Your task to perform on an android device: turn off translation in the chrome app Image 0: 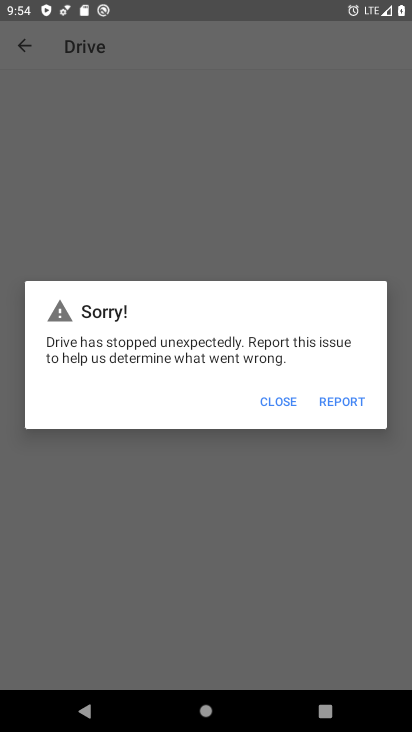
Step 0: press home button
Your task to perform on an android device: turn off translation in the chrome app Image 1: 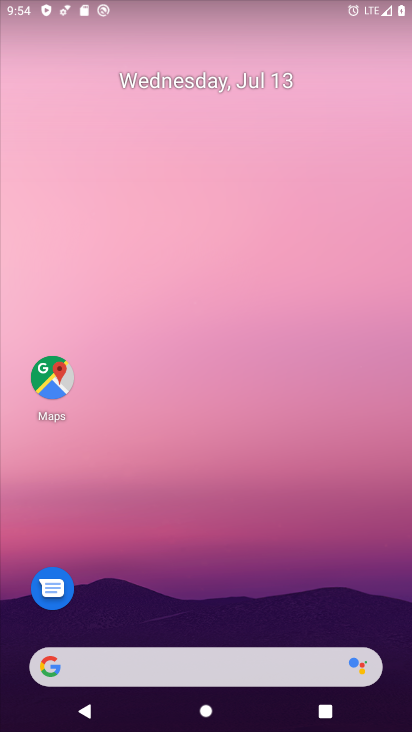
Step 1: drag from (243, 718) to (255, 137)
Your task to perform on an android device: turn off translation in the chrome app Image 2: 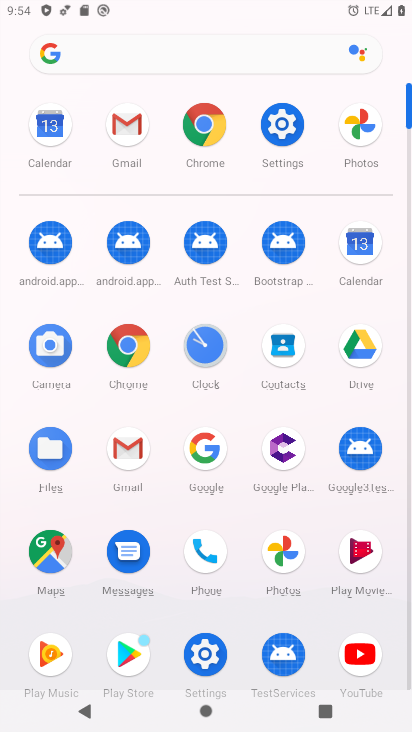
Step 2: click (197, 121)
Your task to perform on an android device: turn off translation in the chrome app Image 3: 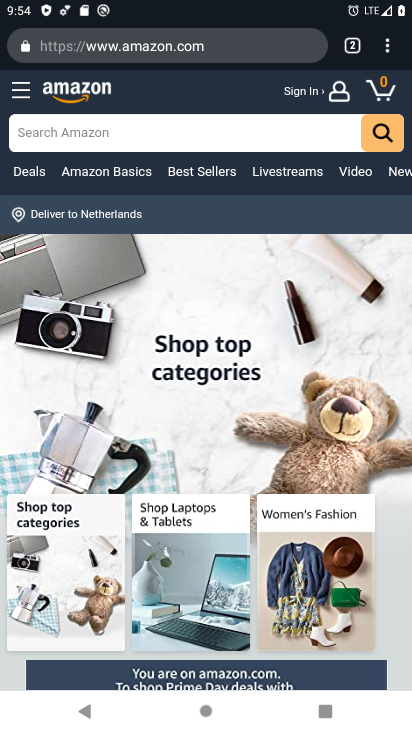
Step 3: click (394, 46)
Your task to perform on an android device: turn off translation in the chrome app Image 4: 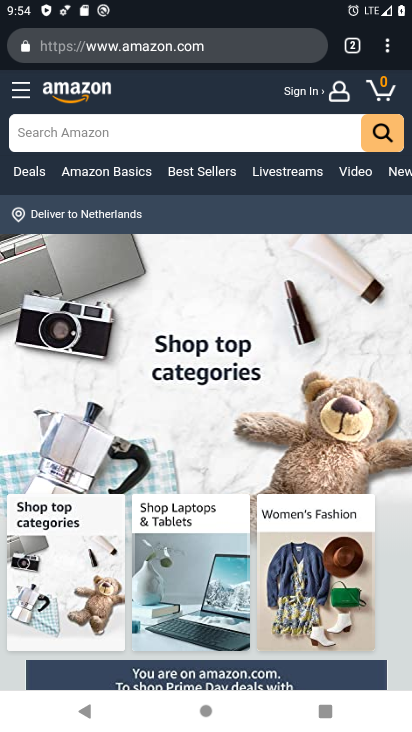
Step 4: click (394, 46)
Your task to perform on an android device: turn off translation in the chrome app Image 5: 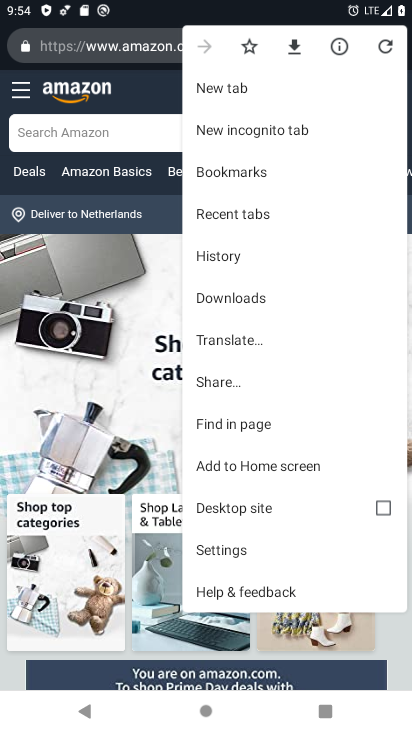
Step 5: click (244, 553)
Your task to perform on an android device: turn off translation in the chrome app Image 6: 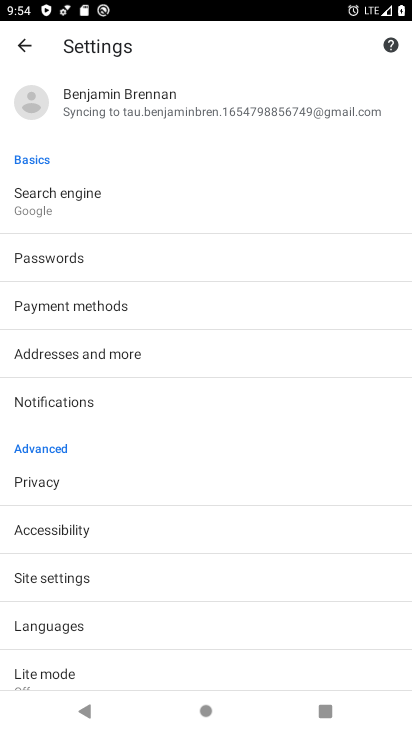
Step 6: click (65, 622)
Your task to perform on an android device: turn off translation in the chrome app Image 7: 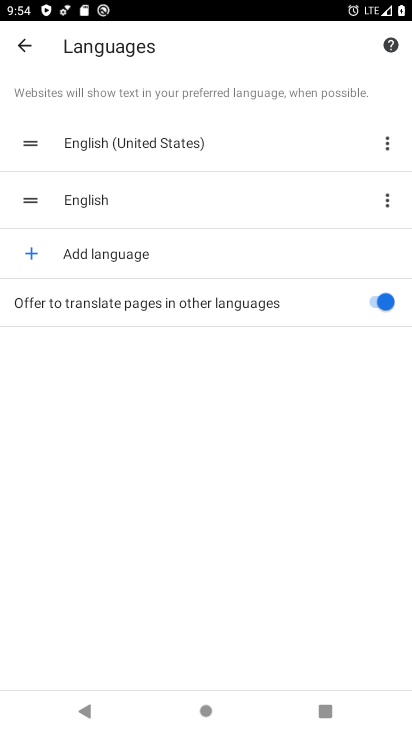
Step 7: click (379, 288)
Your task to perform on an android device: turn off translation in the chrome app Image 8: 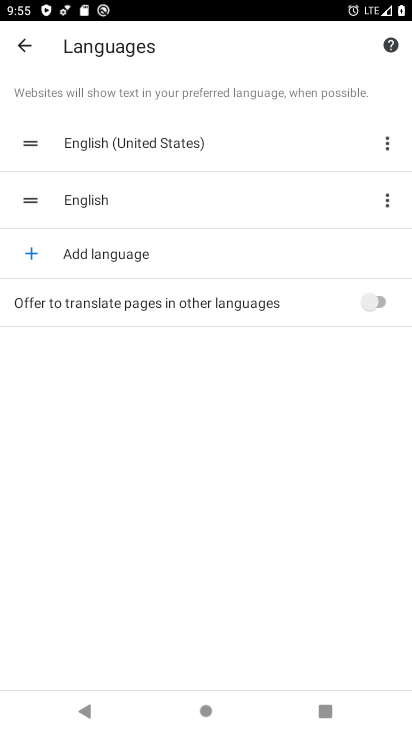
Step 8: task complete